Your task to perform on an android device: move an email to a new category in the gmail app Image 0: 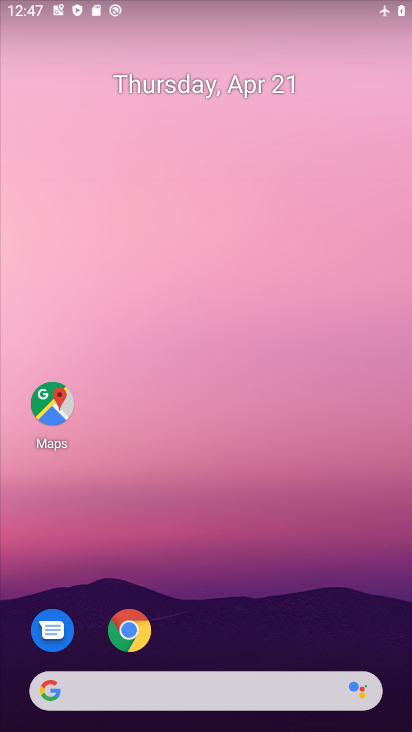
Step 0: drag from (264, 632) to (152, 162)
Your task to perform on an android device: move an email to a new category in the gmail app Image 1: 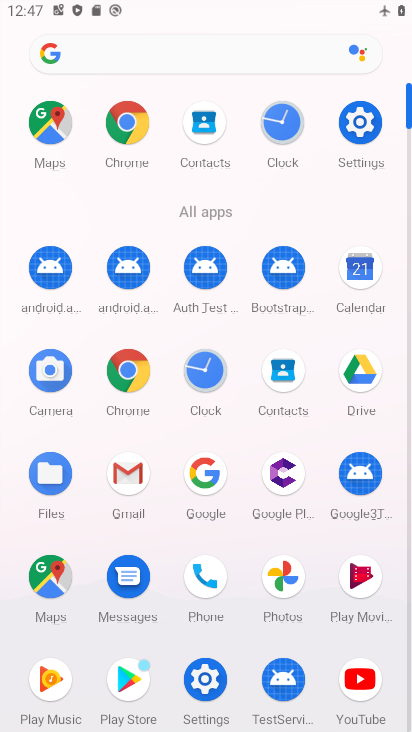
Step 1: click (141, 479)
Your task to perform on an android device: move an email to a new category in the gmail app Image 2: 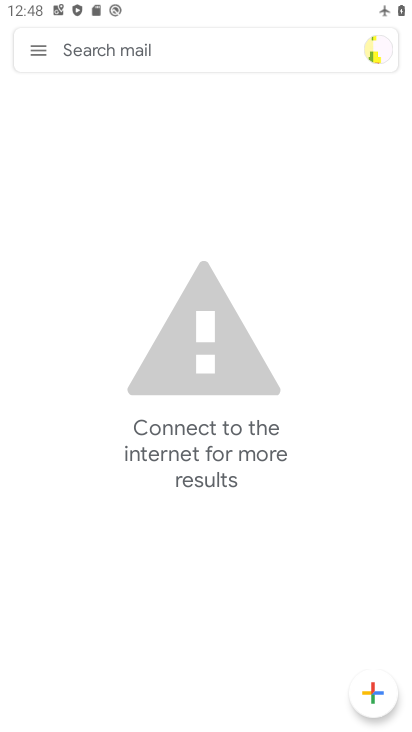
Step 2: task complete